Your task to perform on an android device: Search for sushi restaurants on Maps Image 0: 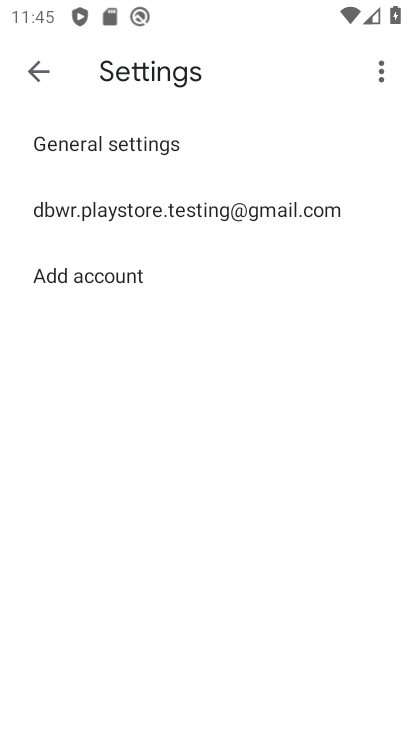
Step 0: press home button
Your task to perform on an android device: Search for sushi restaurants on Maps Image 1: 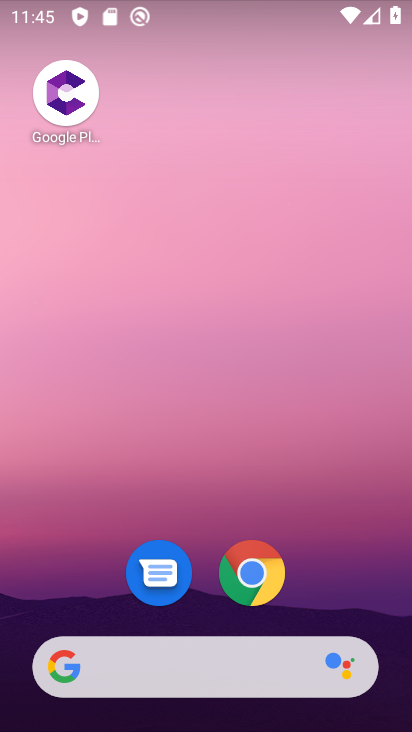
Step 1: drag from (203, 560) to (307, 18)
Your task to perform on an android device: Search for sushi restaurants on Maps Image 2: 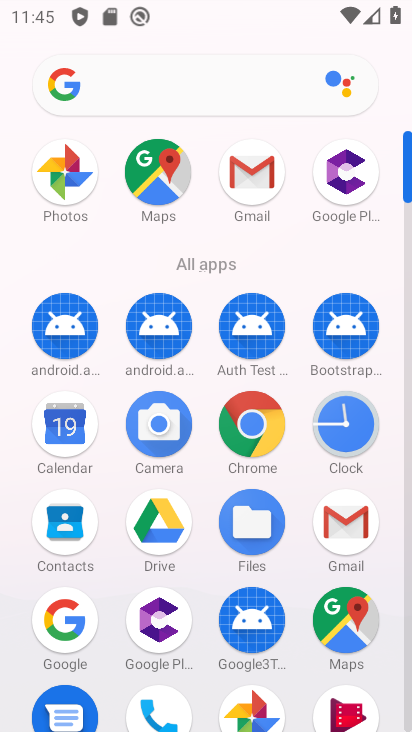
Step 2: click (359, 633)
Your task to perform on an android device: Search for sushi restaurants on Maps Image 3: 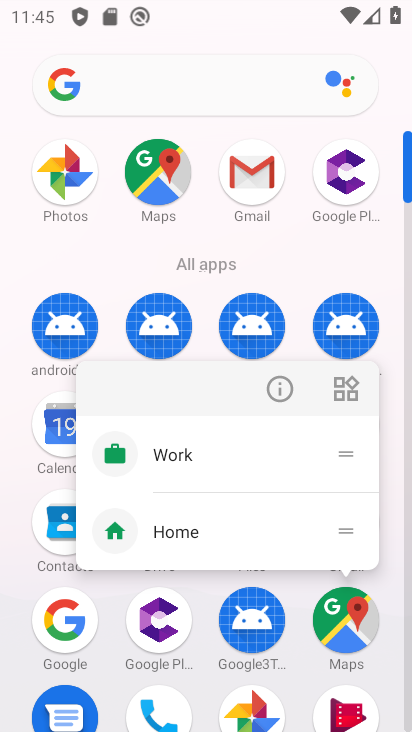
Step 3: click (358, 617)
Your task to perform on an android device: Search for sushi restaurants on Maps Image 4: 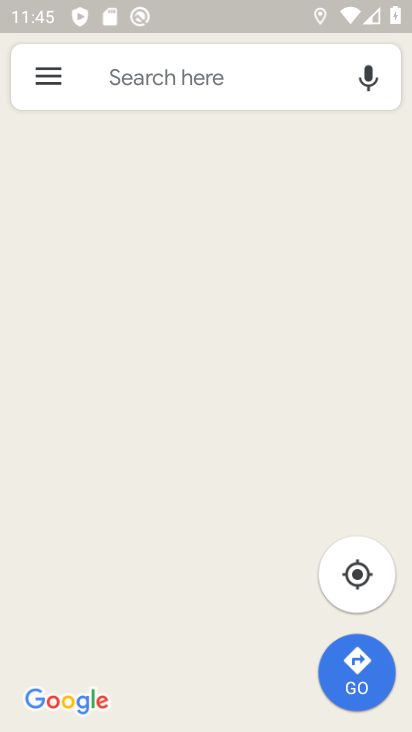
Step 4: click (232, 88)
Your task to perform on an android device: Search for sushi restaurants on Maps Image 5: 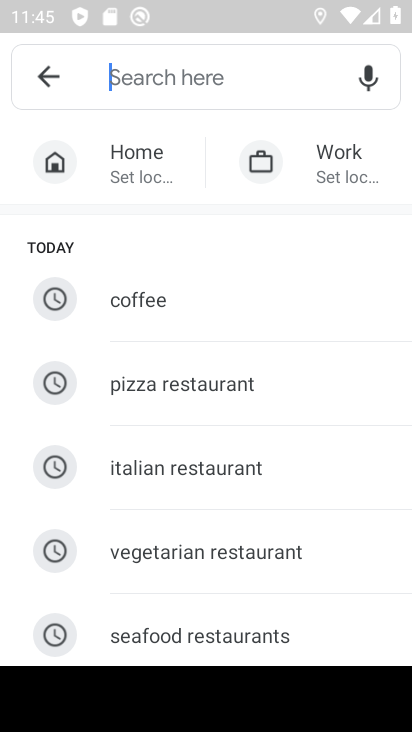
Step 5: type "Sushi restaurants"
Your task to perform on an android device: Search for sushi restaurants on Maps Image 6: 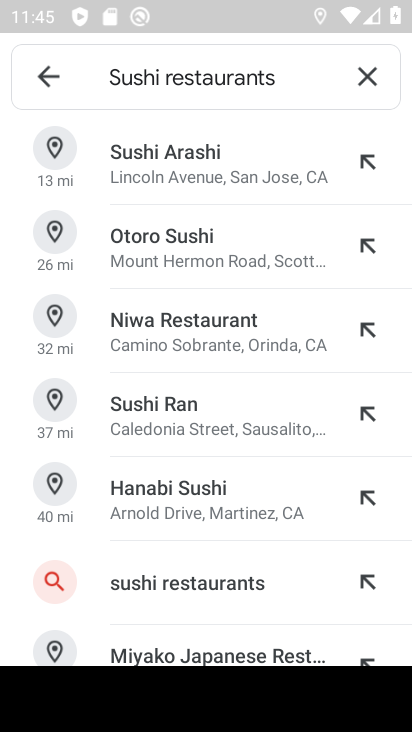
Step 6: click (221, 586)
Your task to perform on an android device: Search for sushi restaurants on Maps Image 7: 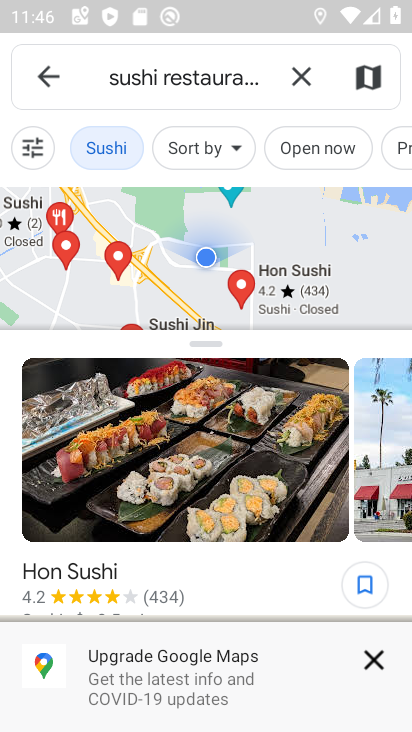
Step 7: task complete